Your task to perform on an android device: turn on notifications settings in the gmail app Image 0: 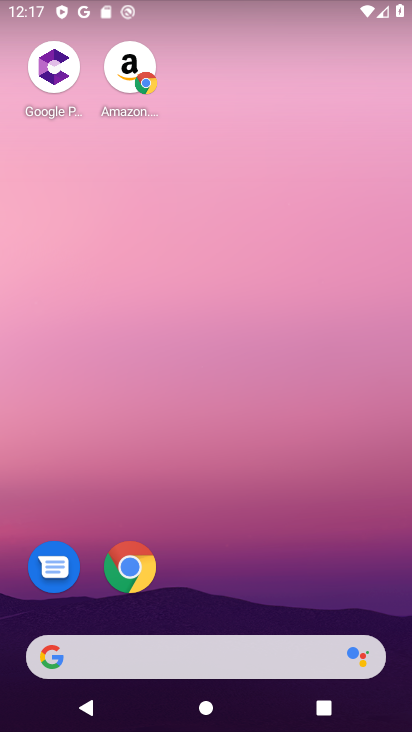
Step 0: drag from (236, 582) to (259, 127)
Your task to perform on an android device: turn on notifications settings in the gmail app Image 1: 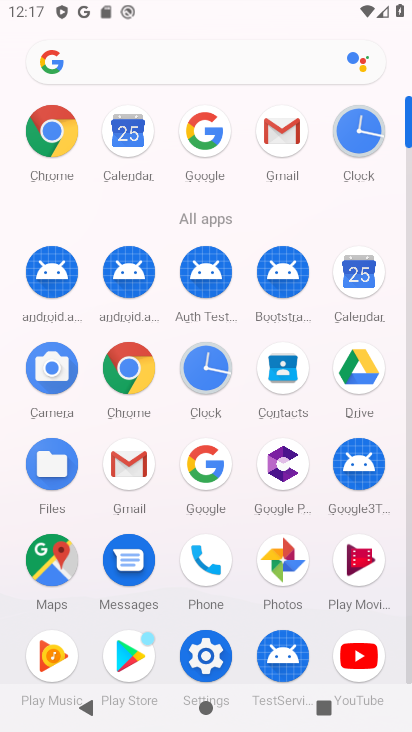
Step 1: click (281, 130)
Your task to perform on an android device: turn on notifications settings in the gmail app Image 2: 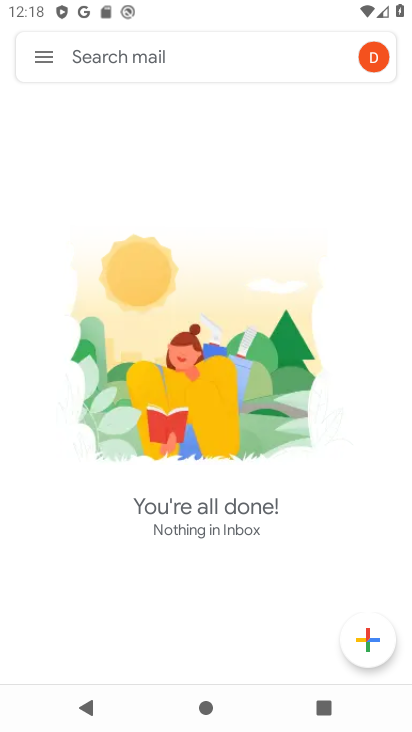
Step 2: click (45, 58)
Your task to perform on an android device: turn on notifications settings in the gmail app Image 3: 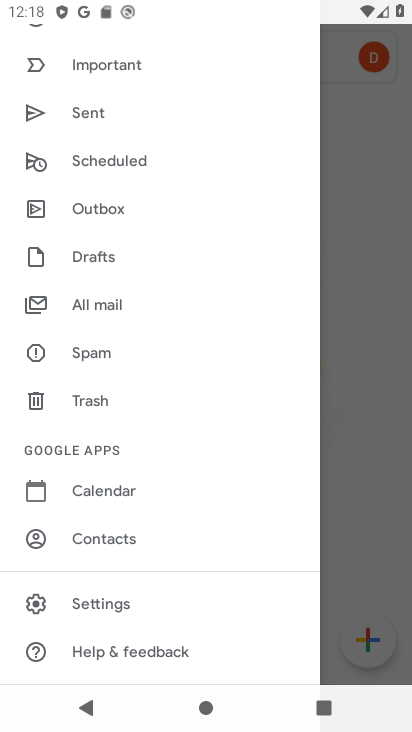
Step 3: drag from (161, 251) to (183, 358)
Your task to perform on an android device: turn on notifications settings in the gmail app Image 4: 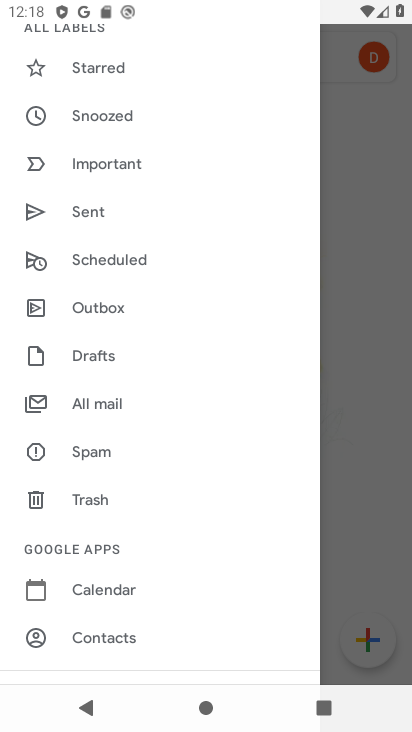
Step 4: drag from (190, 161) to (174, 299)
Your task to perform on an android device: turn on notifications settings in the gmail app Image 5: 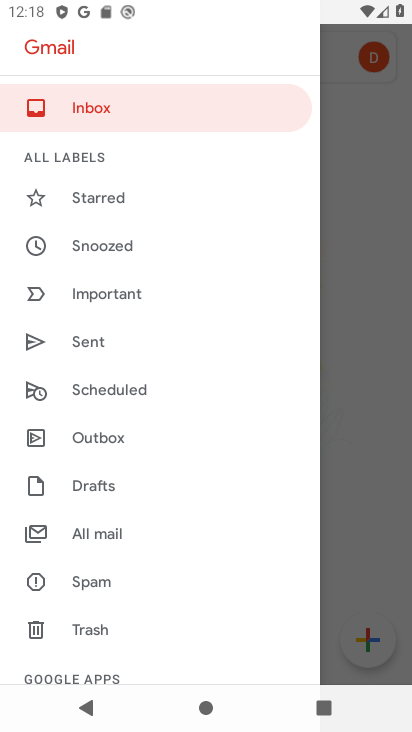
Step 5: drag from (160, 526) to (211, 429)
Your task to perform on an android device: turn on notifications settings in the gmail app Image 6: 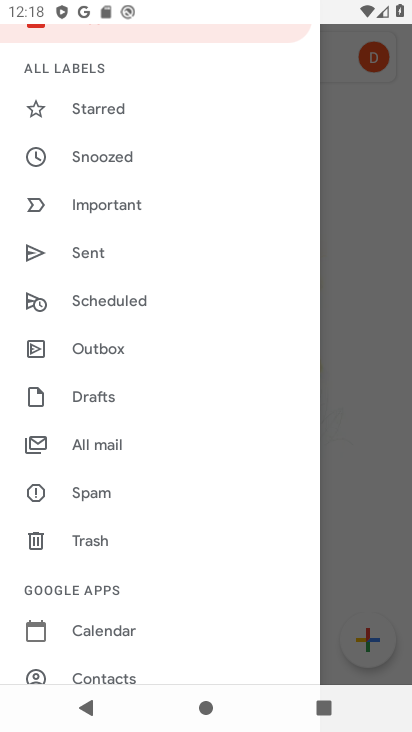
Step 6: drag from (176, 591) to (193, 474)
Your task to perform on an android device: turn on notifications settings in the gmail app Image 7: 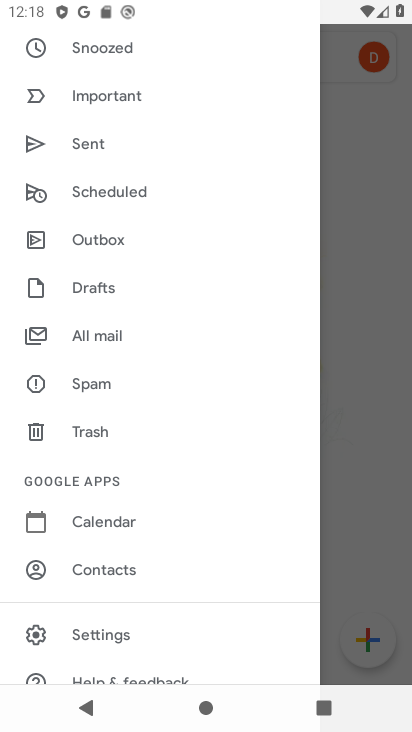
Step 7: click (109, 642)
Your task to perform on an android device: turn on notifications settings in the gmail app Image 8: 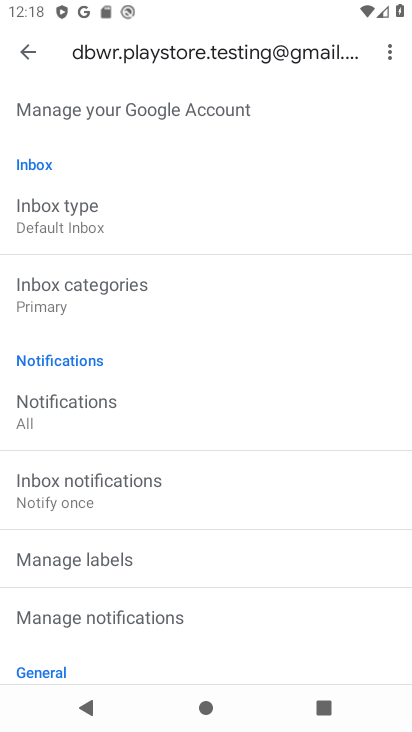
Step 8: drag from (93, 433) to (155, 342)
Your task to perform on an android device: turn on notifications settings in the gmail app Image 9: 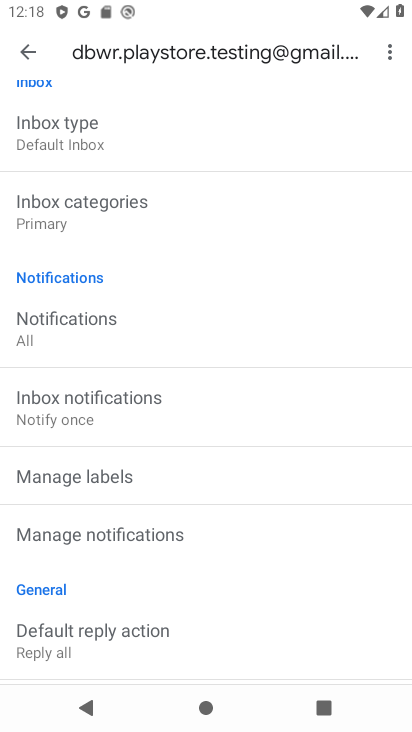
Step 9: drag from (73, 492) to (134, 408)
Your task to perform on an android device: turn on notifications settings in the gmail app Image 10: 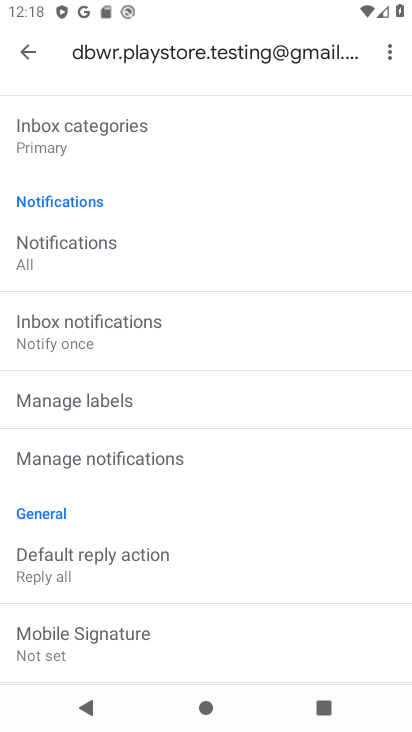
Step 10: click (134, 454)
Your task to perform on an android device: turn on notifications settings in the gmail app Image 11: 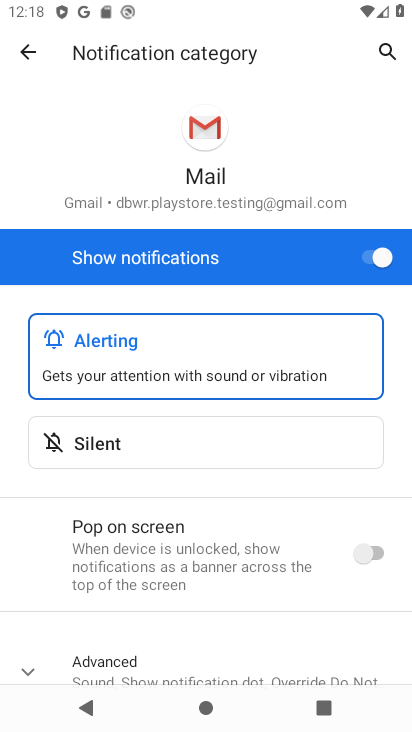
Step 11: task complete